Your task to perform on an android device: Open notification settings Image 0: 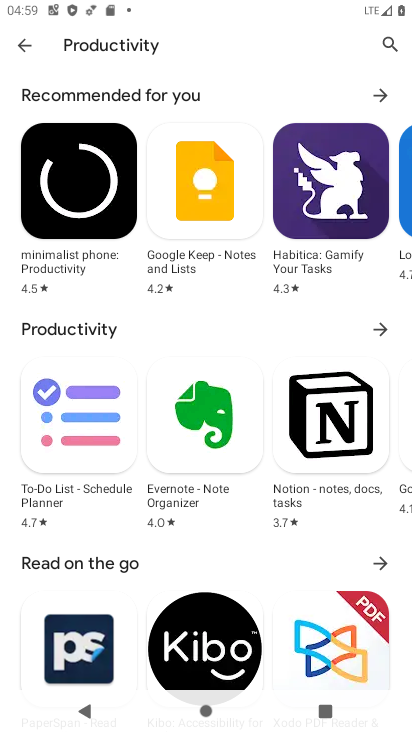
Step 0: press back button
Your task to perform on an android device: Open notification settings Image 1: 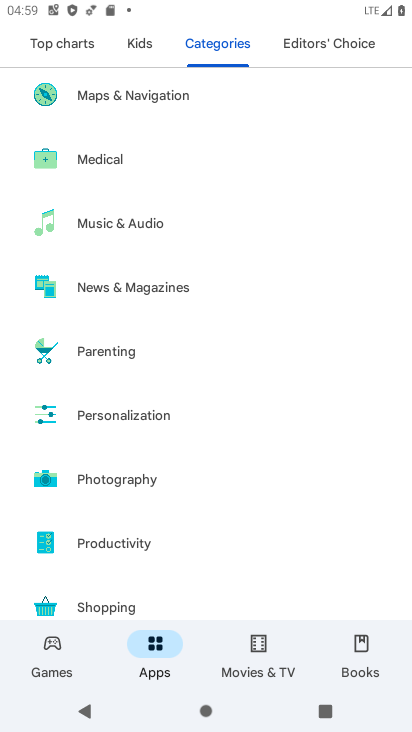
Step 1: press back button
Your task to perform on an android device: Open notification settings Image 2: 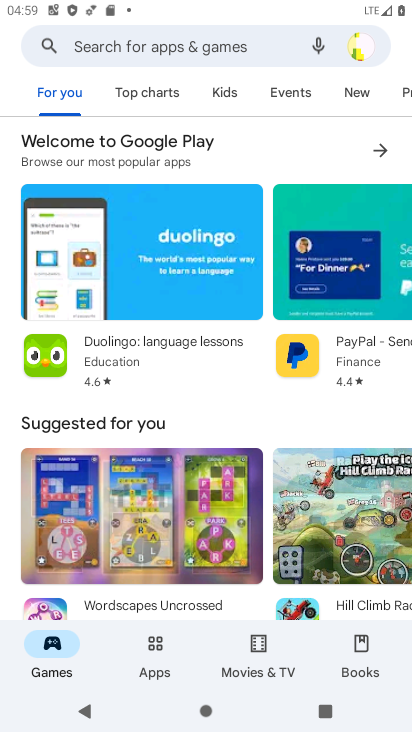
Step 2: press back button
Your task to perform on an android device: Open notification settings Image 3: 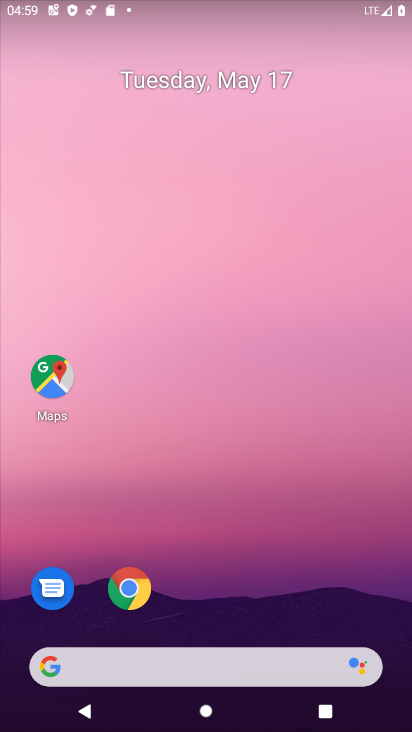
Step 3: drag from (249, 573) to (186, 126)
Your task to perform on an android device: Open notification settings Image 4: 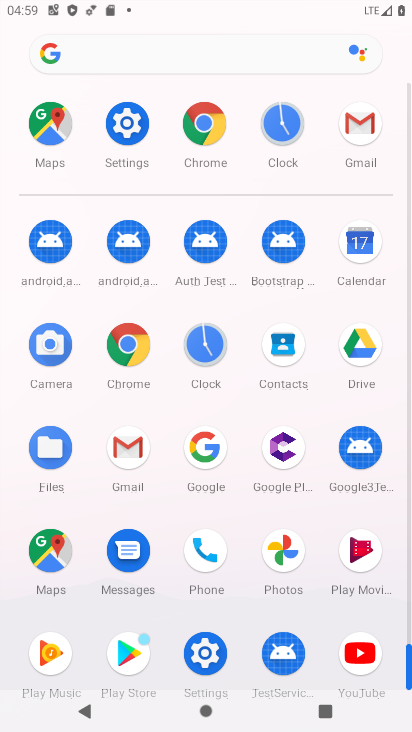
Step 4: click (128, 124)
Your task to perform on an android device: Open notification settings Image 5: 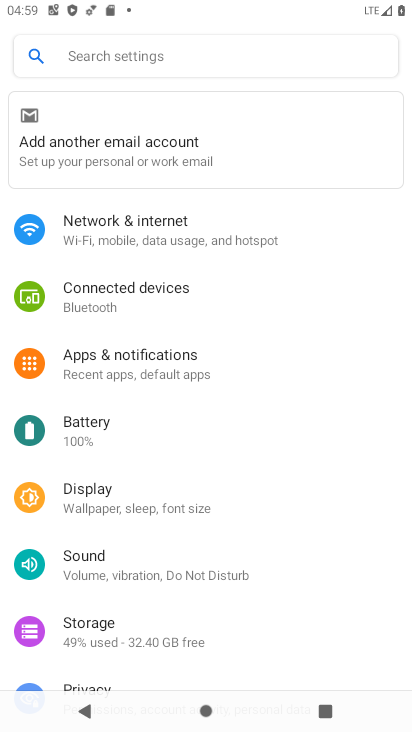
Step 5: drag from (124, 459) to (121, 336)
Your task to perform on an android device: Open notification settings Image 6: 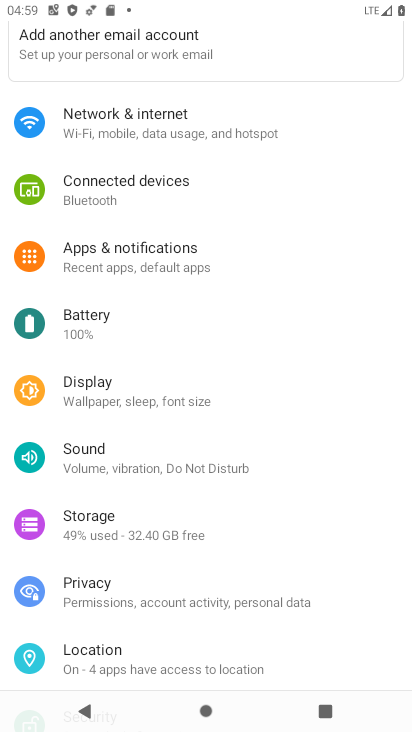
Step 6: click (131, 258)
Your task to perform on an android device: Open notification settings Image 7: 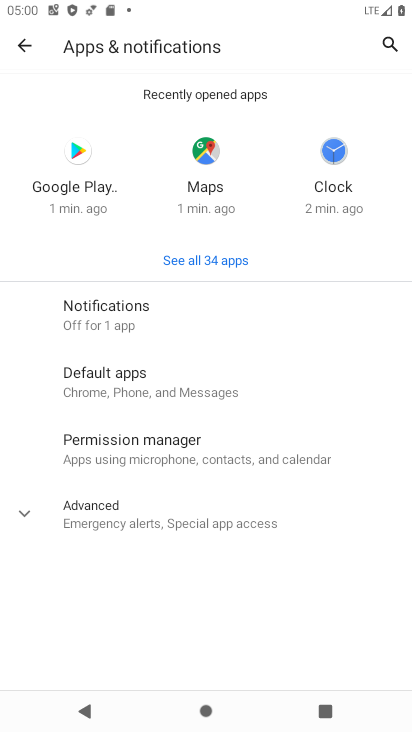
Step 7: click (105, 316)
Your task to perform on an android device: Open notification settings Image 8: 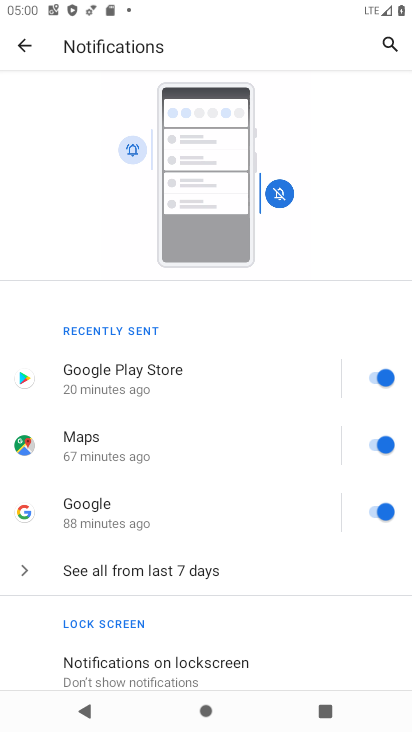
Step 8: task complete